Your task to perform on an android device: Do I have any events this weekend? Image 0: 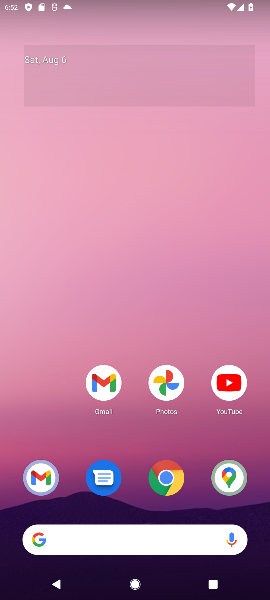
Step 0: press home button
Your task to perform on an android device: Do I have any events this weekend? Image 1: 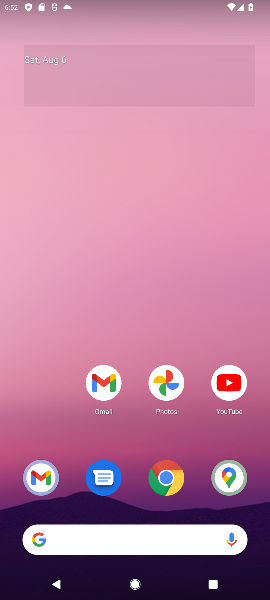
Step 1: drag from (43, 415) to (51, 0)
Your task to perform on an android device: Do I have any events this weekend? Image 2: 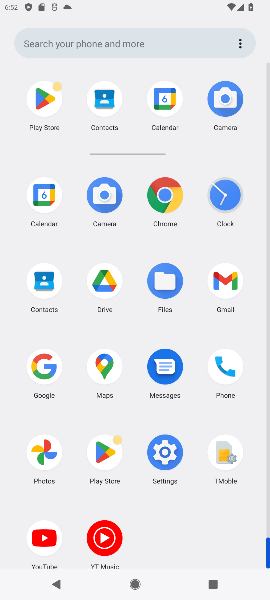
Step 2: click (50, 192)
Your task to perform on an android device: Do I have any events this weekend? Image 3: 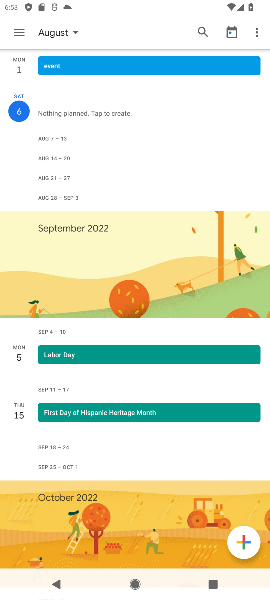
Step 3: click (14, 37)
Your task to perform on an android device: Do I have any events this weekend? Image 4: 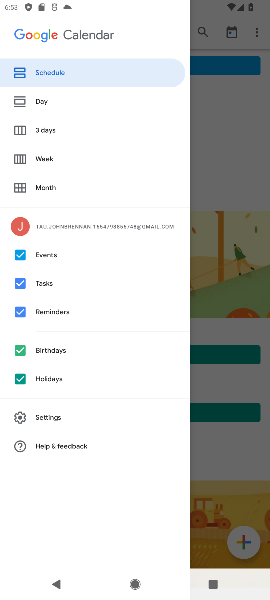
Step 4: click (76, 159)
Your task to perform on an android device: Do I have any events this weekend? Image 5: 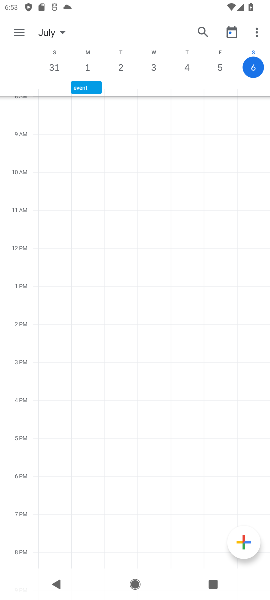
Step 5: task complete